Your task to perform on an android device: turn notification dots on Image 0: 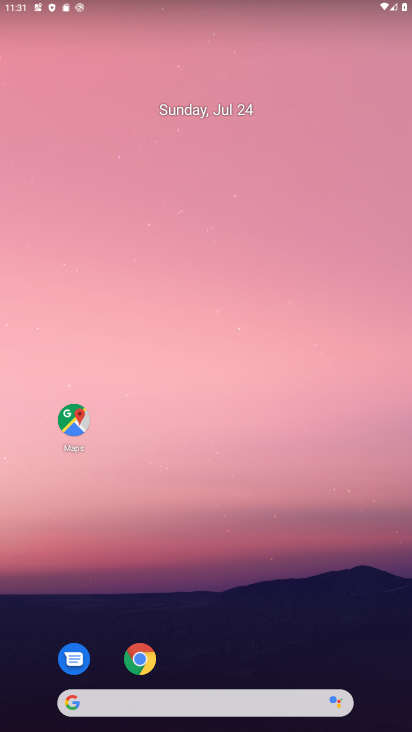
Step 0: drag from (54, 644) to (167, 136)
Your task to perform on an android device: turn notification dots on Image 1: 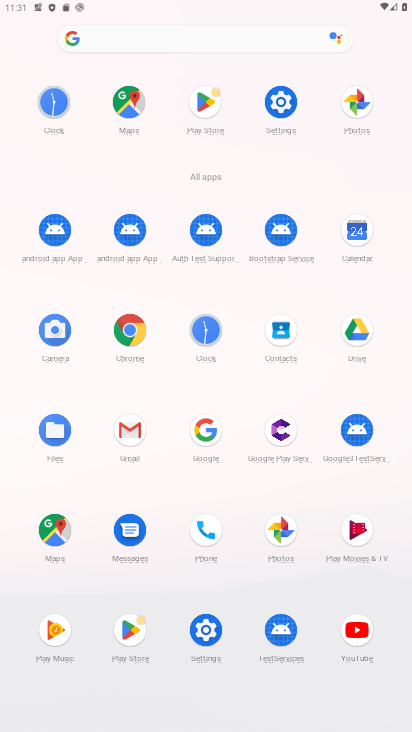
Step 1: click (196, 636)
Your task to perform on an android device: turn notification dots on Image 2: 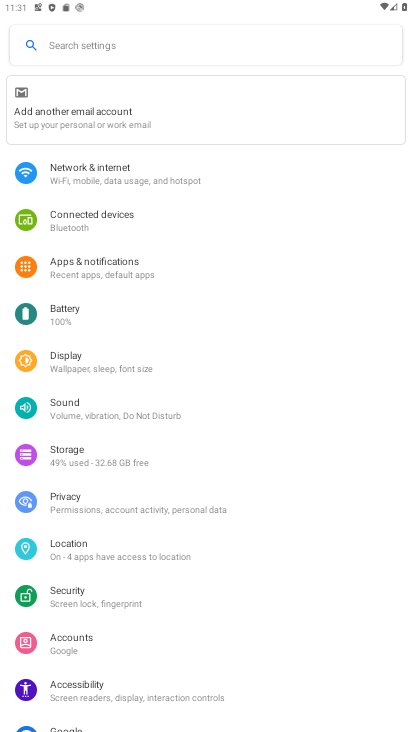
Step 2: click (95, 275)
Your task to perform on an android device: turn notification dots on Image 3: 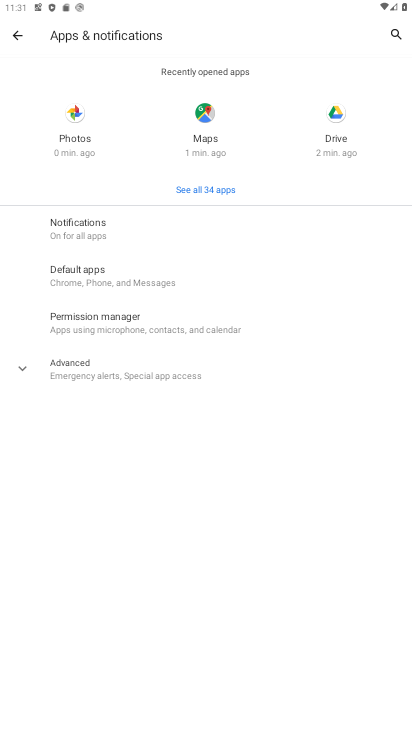
Step 3: click (93, 217)
Your task to perform on an android device: turn notification dots on Image 4: 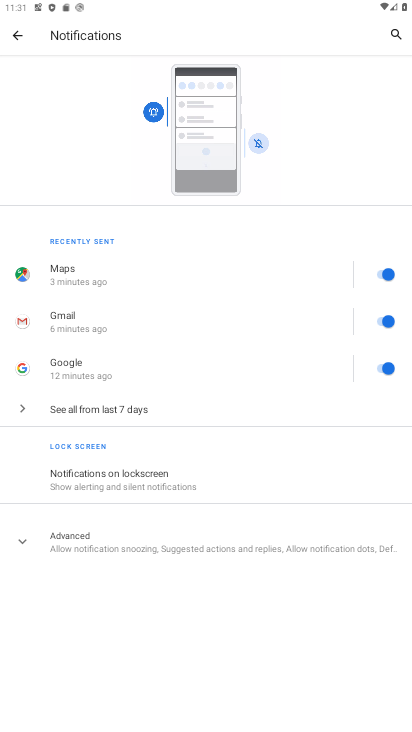
Step 4: click (114, 549)
Your task to perform on an android device: turn notification dots on Image 5: 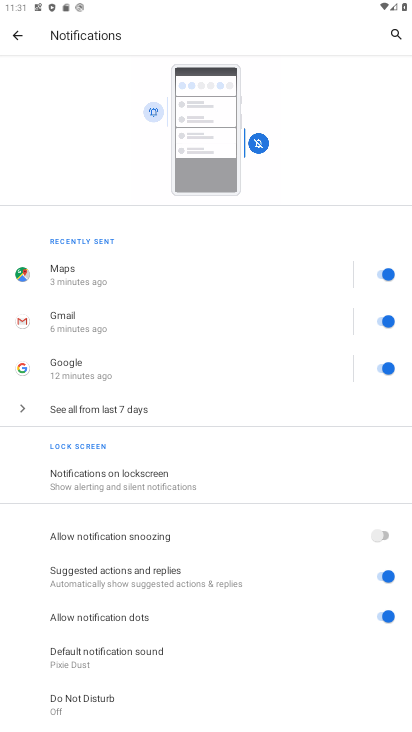
Step 5: task complete